Your task to perform on an android device: Go to Google maps Image 0: 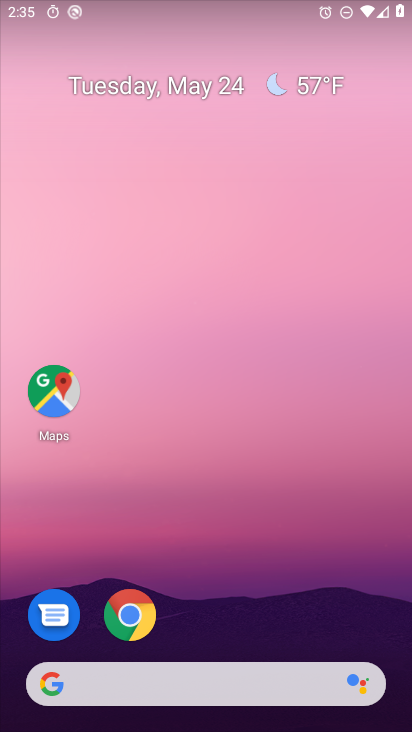
Step 0: click (50, 377)
Your task to perform on an android device: Go to Google maps Image 1: 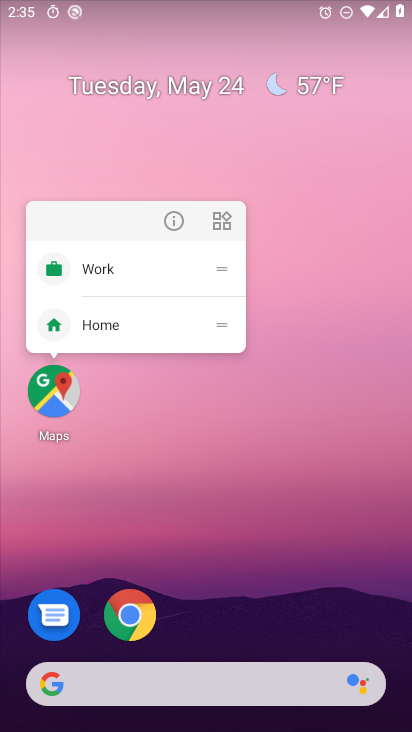
Step 1: click (58, 388)
Your task to perform on an android device: Go to Google maps Image 2: 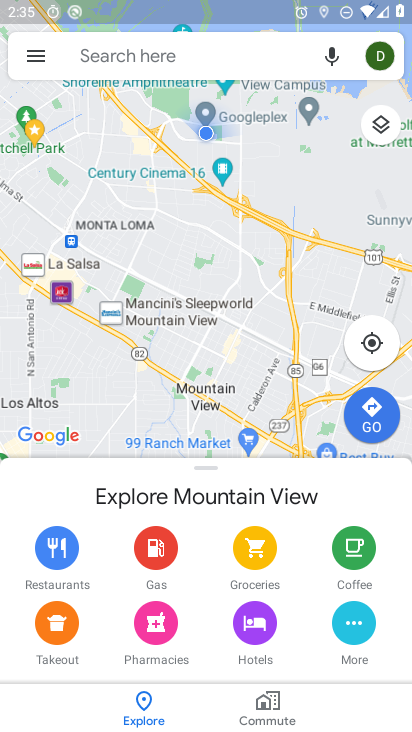
Step 2: task complete